Your task to perform on an android device: Open the calendar app, open the side menu, and click the "Day" option Image 0: 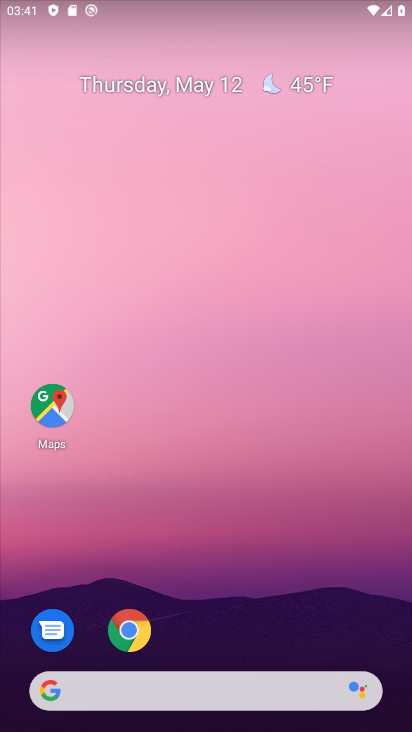
Step 0: drag from (295, 672) to (402, 110)
Your task to perform on an android device: Open the calendar app, open the side menu, and click the "Day" option Image 1: 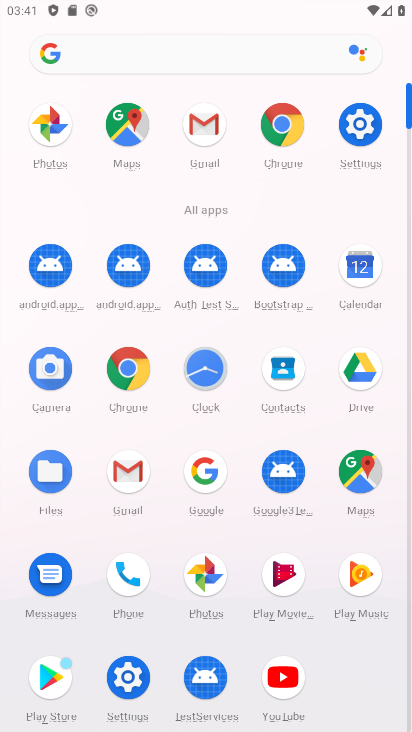
Step 1: click (369, 279)
Your task to perform on an android device: Open the calendar app, open the side menu, and click the "Day" option Image 2: 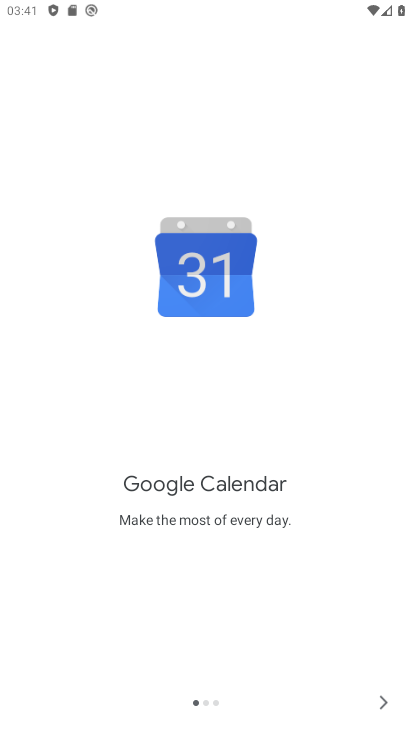
Step 2: click (390, 694)
Your task to perform on an android device: Open the calendar app, open the side menu, and click the "Day" option Image 3: 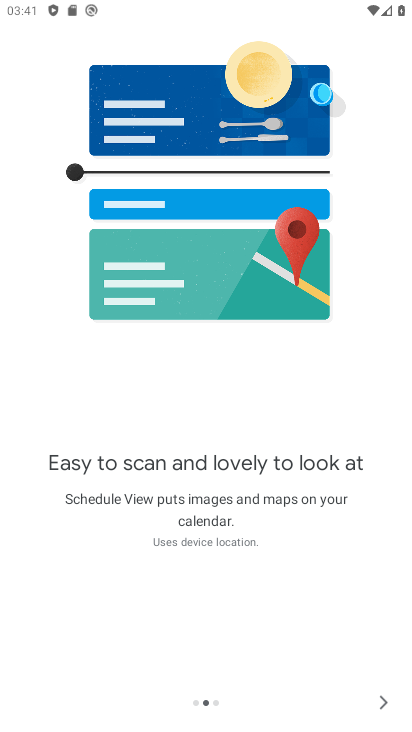
Step 3: click (381, 698)
Your task to perform on an android device: Open the calendar app, open the side menu, and click the "Day" option Image 4: 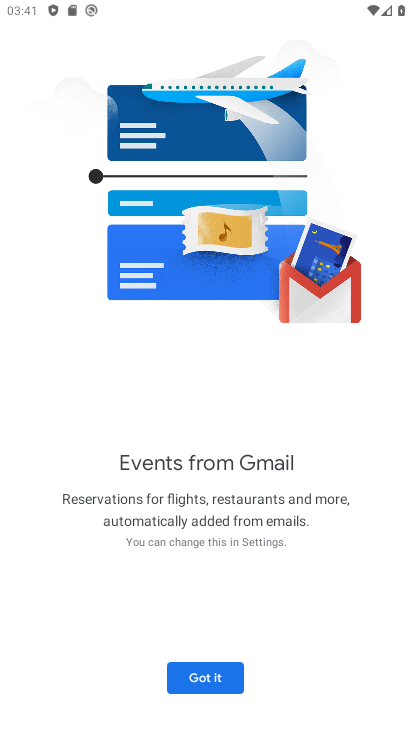
Step 4: click (167, 672)
Your task to perform on an android device: Open the calendar app, open the side menu, and click the "Day" option Image 5: 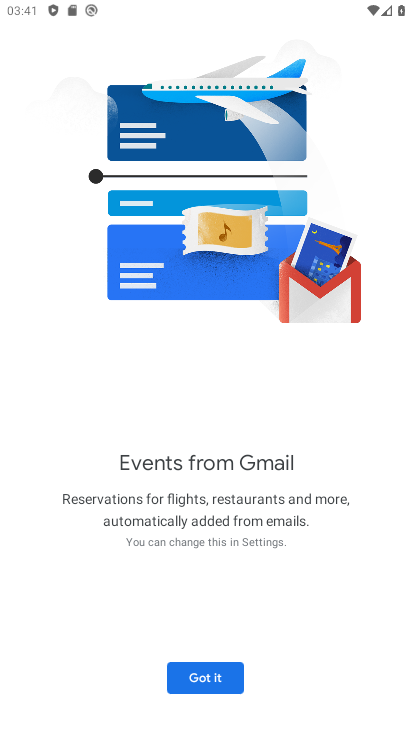
Step 5: click (186, 664)
Your task to perform on an android device: Open the calendar app, open the side menu, and click the "Day" option Image 6: 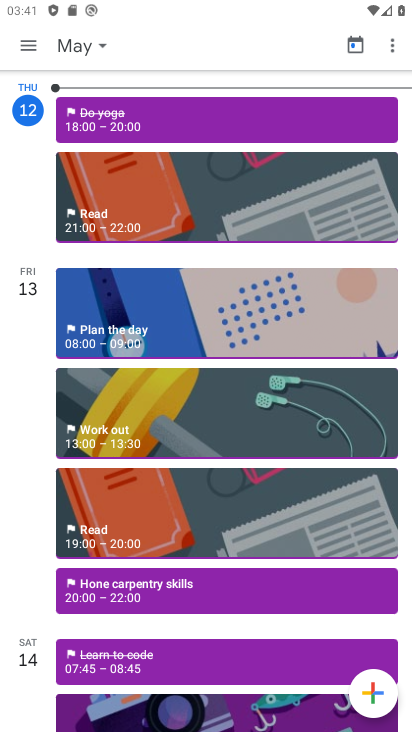
Step 6: click (38, 44)
Your task to perform on an android device: Open the calendar app, open the side menu, and click the "Day" option Image 7: 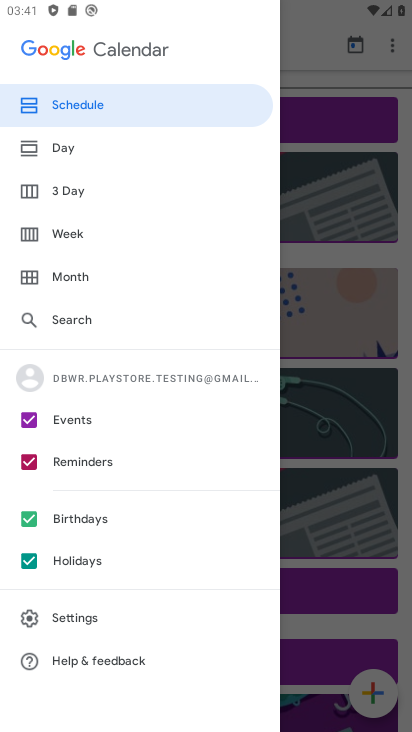
Step 7: click (84, 151)
Your task to perform on an android device: Open the calendar app, open the side menu, and click the "Day" option Image 8: 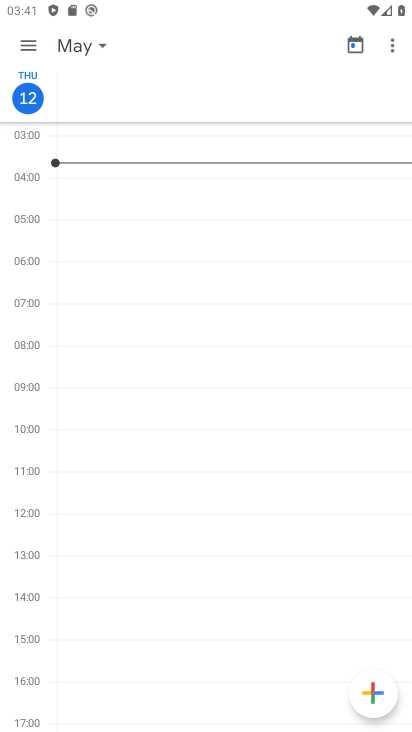
Step 8: task complete